Your task to perform on an android device: uninstall "Gmail" Image 0: 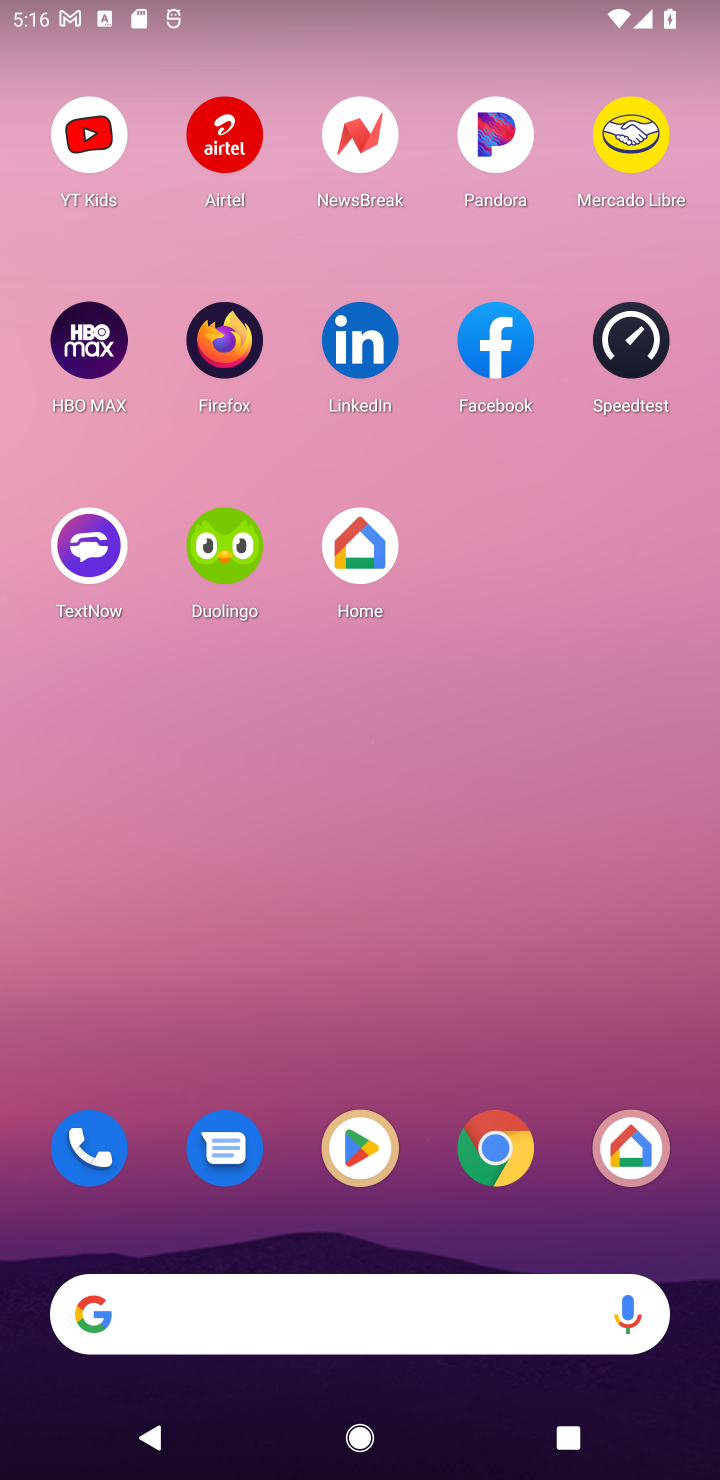
Step 0: click (357, 1139)
Your task to perform on an android device: uninstall "Gmail" Image 1: 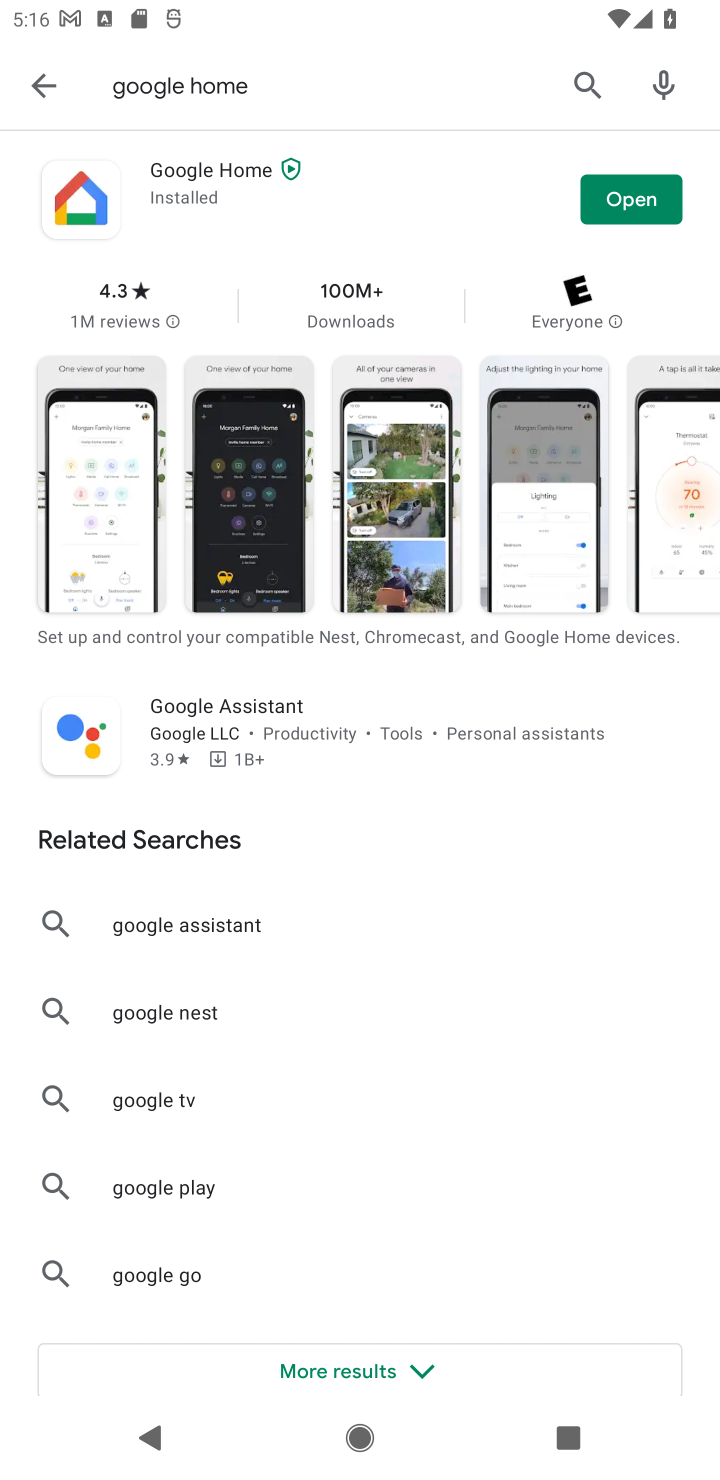
Step 1: click (602, 72)
Your task to perform on an android device: uninstall "Gmail" Image 2: 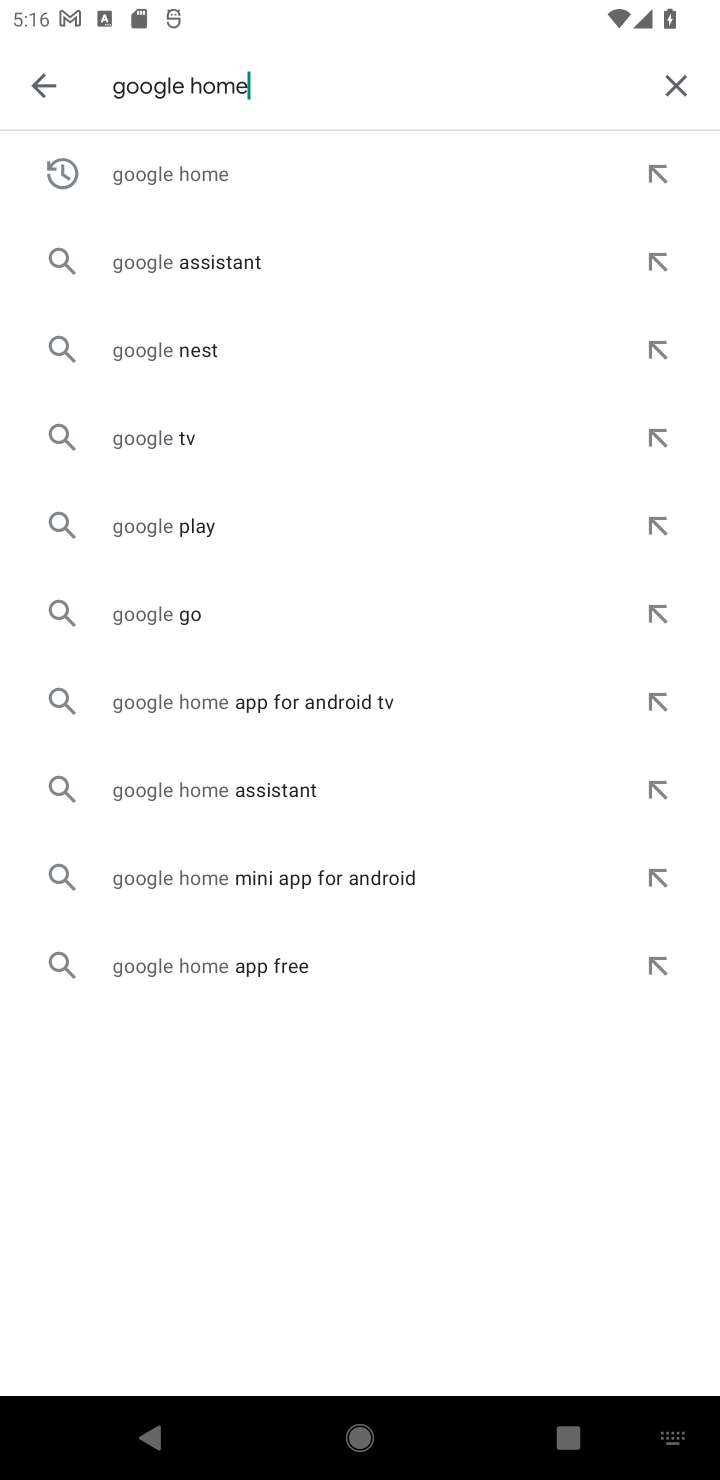
Step 2: click (602, 72)
Your task to perform on an android device: uninstall "Gmail" Image 3: 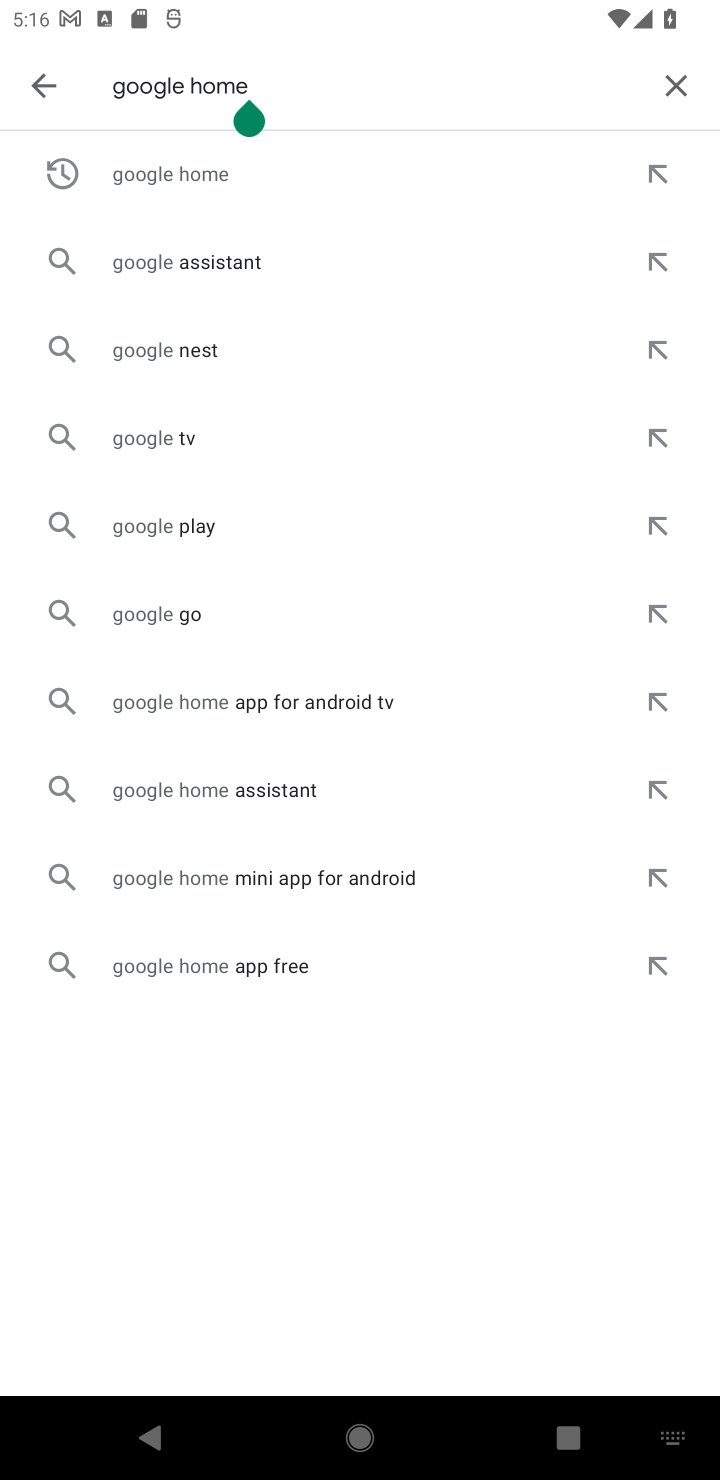
Step 3: click (679, 80)
Your task to perform on an android device: uninstall "Gmail" Image 4: 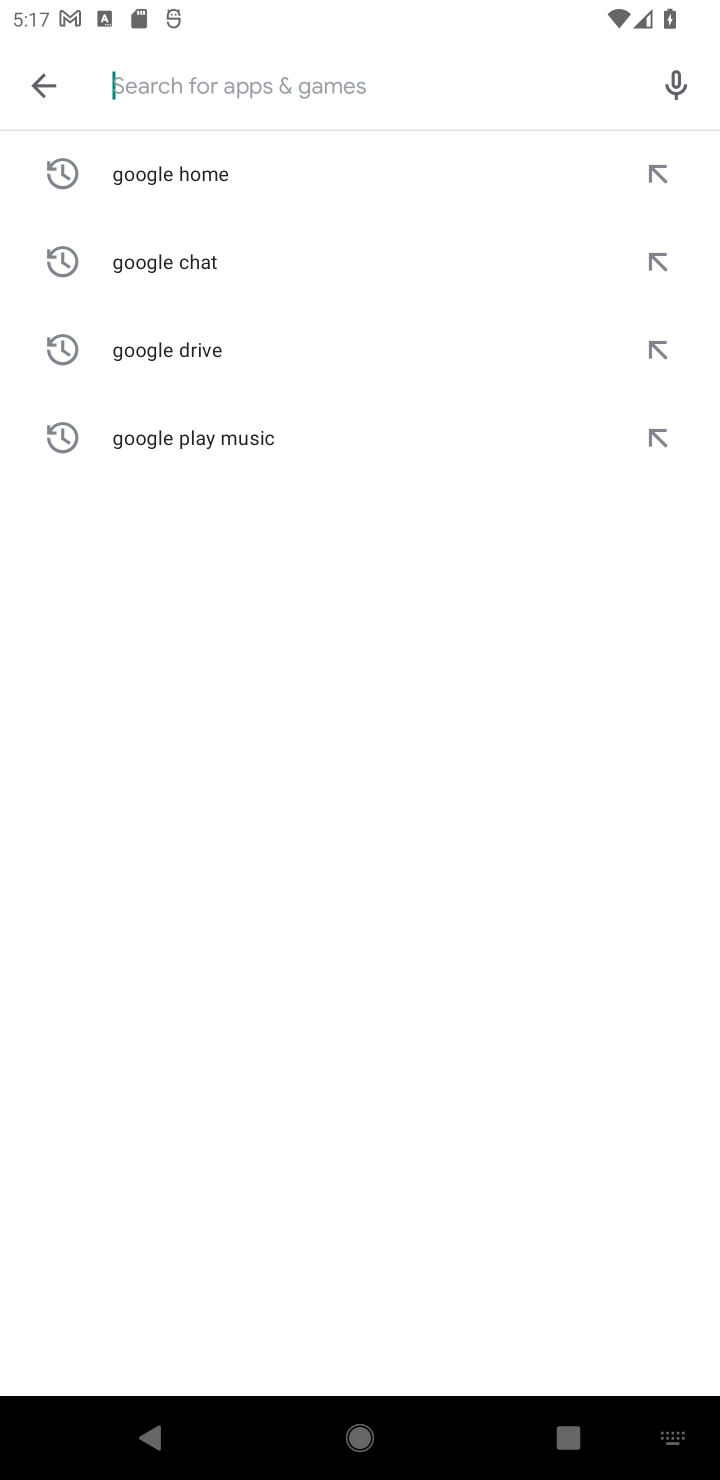
Step 4: type "Gmail"
Your task to perform on an android device: uninstall "Gmail" Image 5: 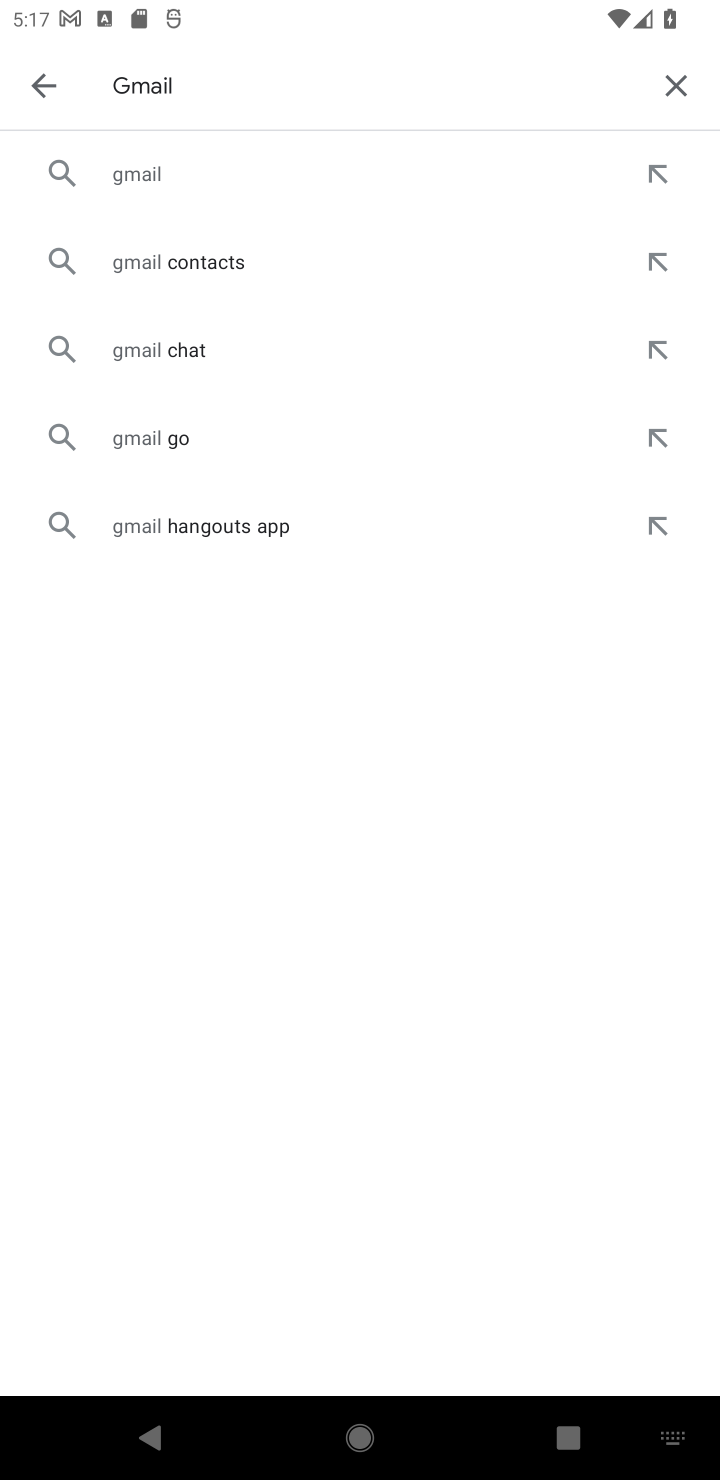
Step 5: click (143, 167)
Your task to perform on an android device: uninstall "Gmail" Image 6: 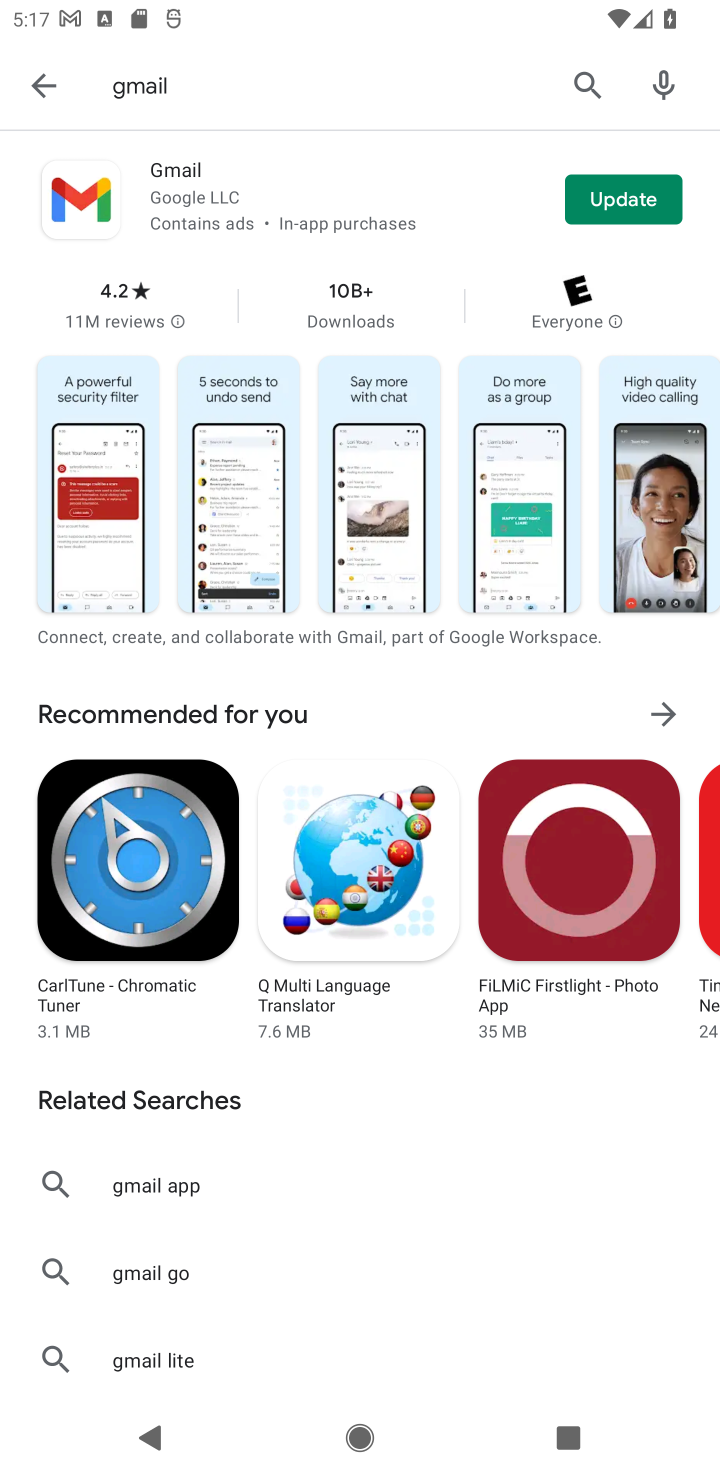
Step 6: click (201, 216)
Your task to perform on an android device: uninstall "Gmail" Image 7: 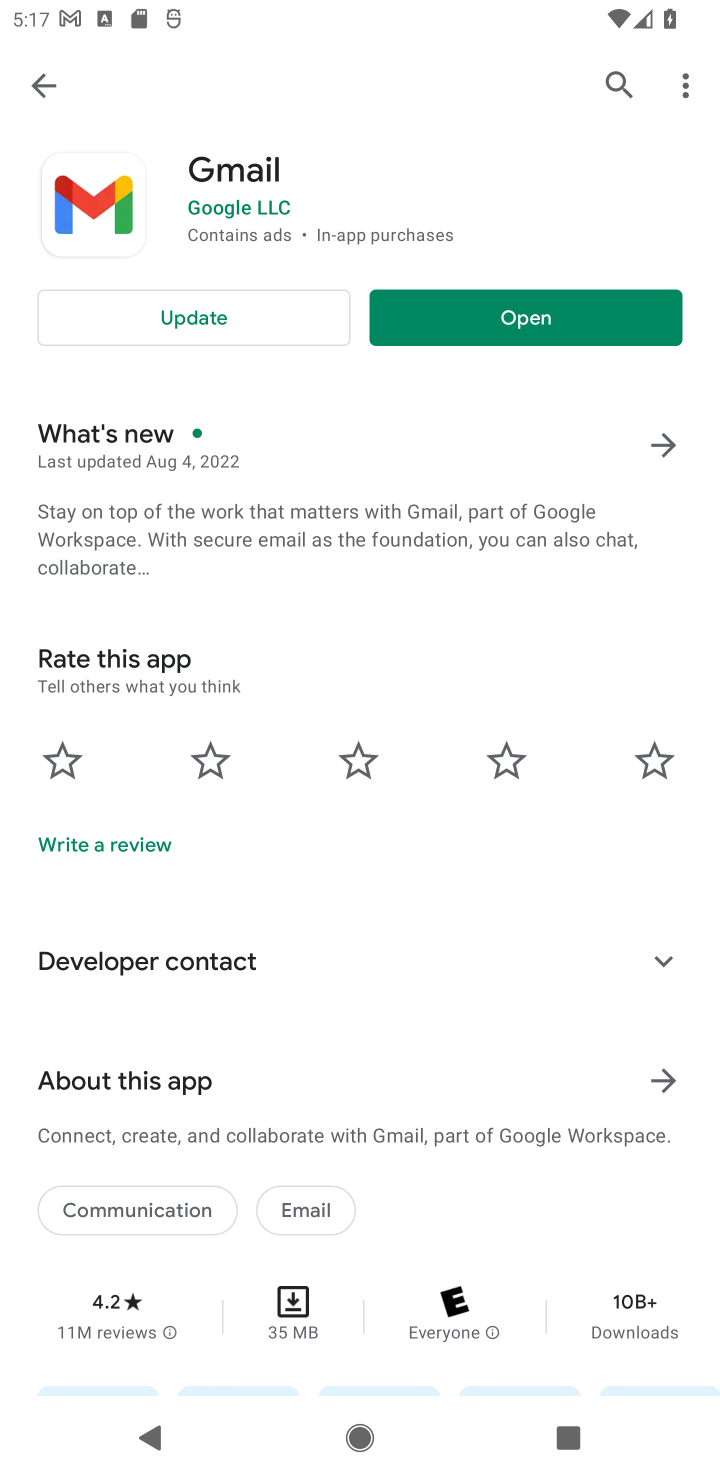
Step 7: task complete